Your task to perform on an android device: Go to network settings Image 0: 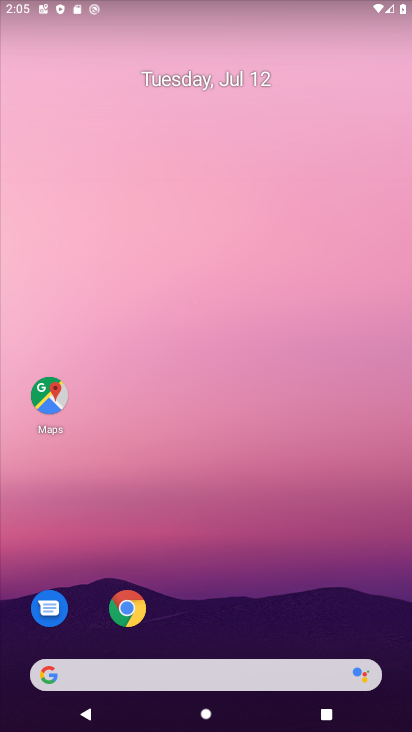
Step 0: drag from (273, 613) to (242, 102)
Your task to perform on an android device: Go to network settings Image 1: 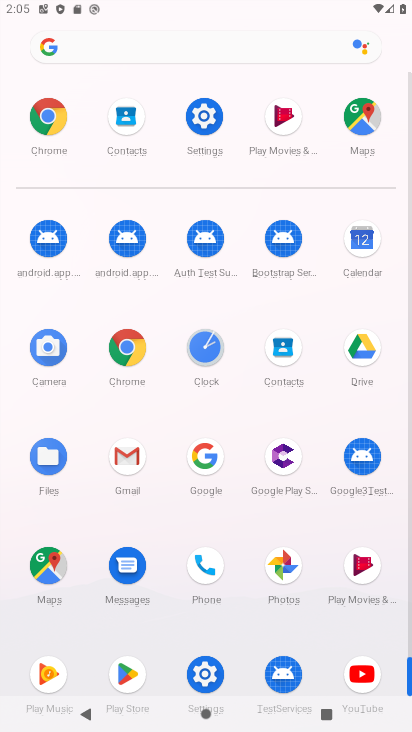
Step 1: click (195, 114)
Your task to perform on an android device: Go to network settings Image 2: 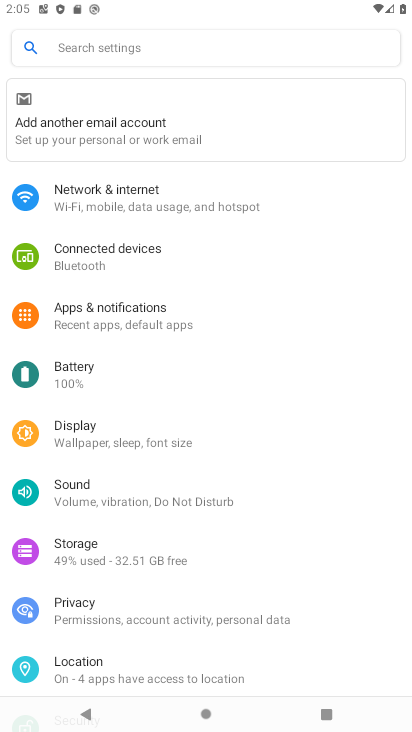
Step 2: click (113, 199)
Your task to perform on an android device: Go to network settings Image 3: 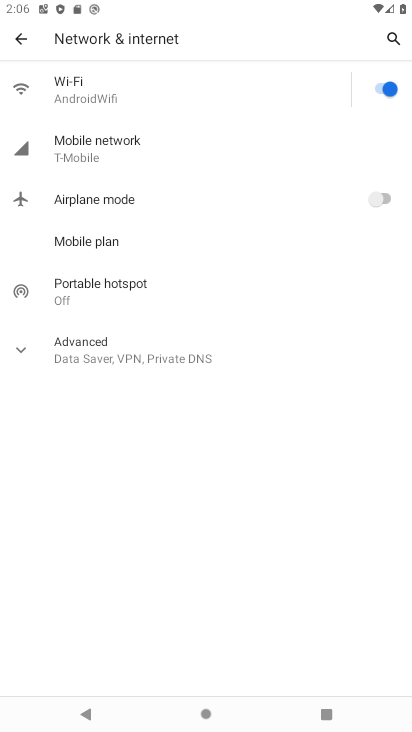
Step 3: click (189, 83)
Your task to perform on an android device: Go to network settings Image 4: 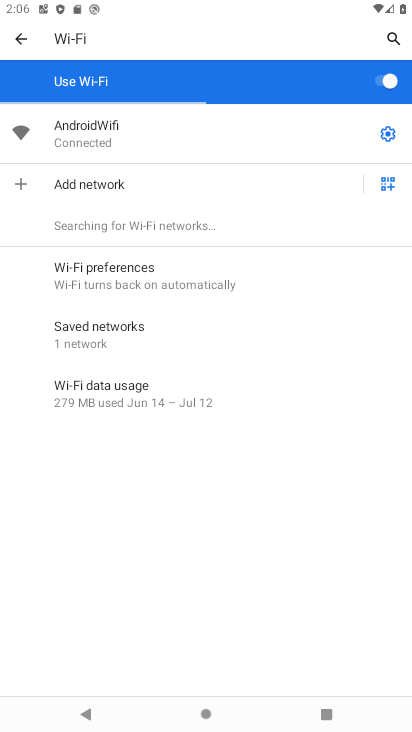
Step 4: click (394, 136)
Your task to perform on an android device: Go to network settings Image 5: 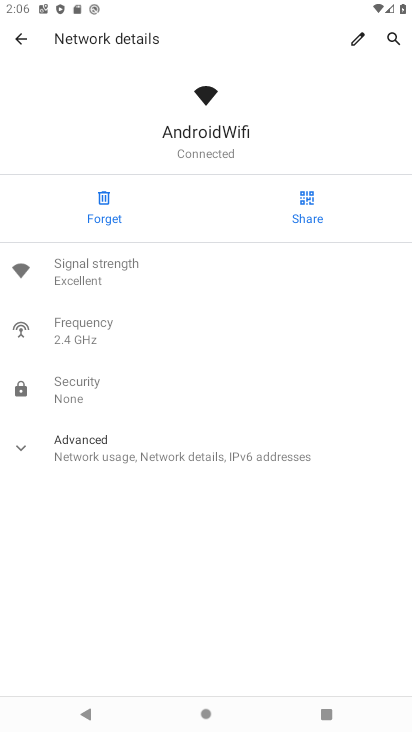
Step 5: task complete